Your task to perform on an android device: turn pop-ups on in chrome Image 0: 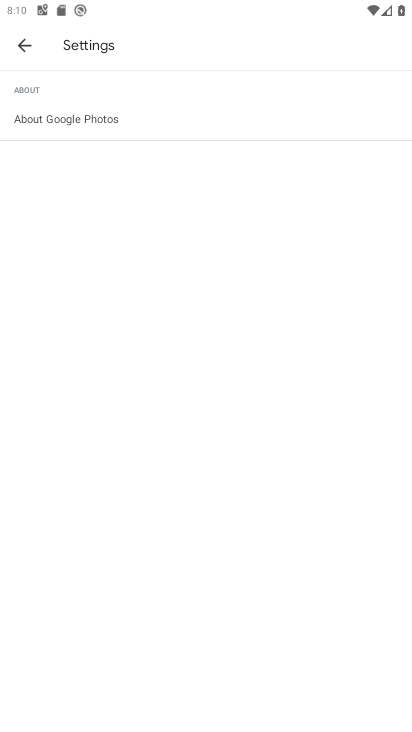
Step 0: press home button
Your task to perform on an android device: turn pop-ups on in chrome Image 1: 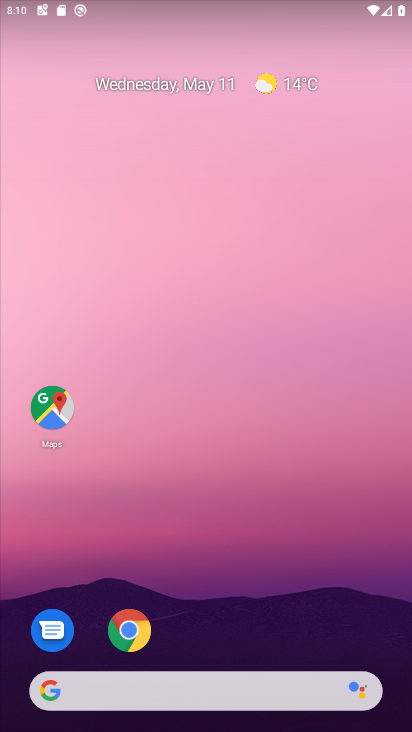
Step 1: click (133, 642)
Your task to perform on an android device: turn pop-ups on in chrome Image 2: 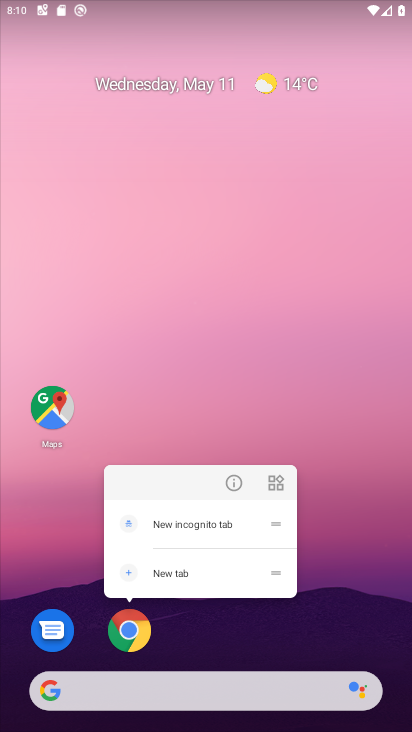
Step 2: click (130, 627)
Your task to perform on an android device: turn pop-ups on in chrome Image 3: 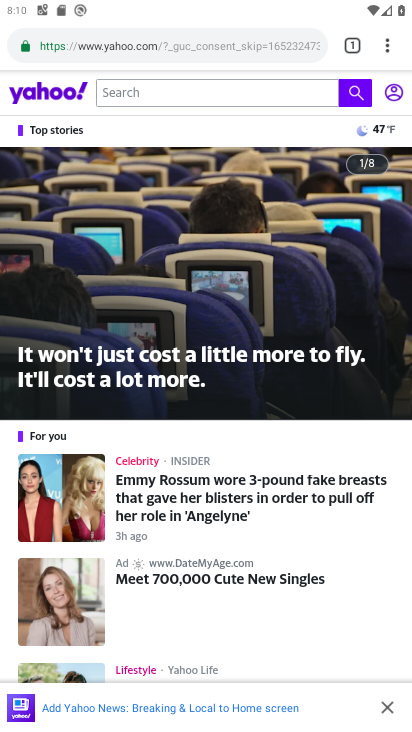
Step 3: click (386, 37)
Your task to perform on an android device: turn pop-ups on in chrome Image 4: 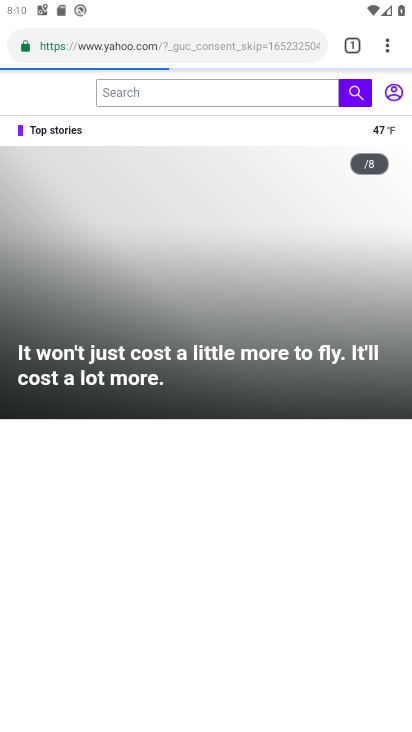
Step 4: click (384, 41)
Your task to perform on an android device: turn pop-ups on in chrome Image 5: 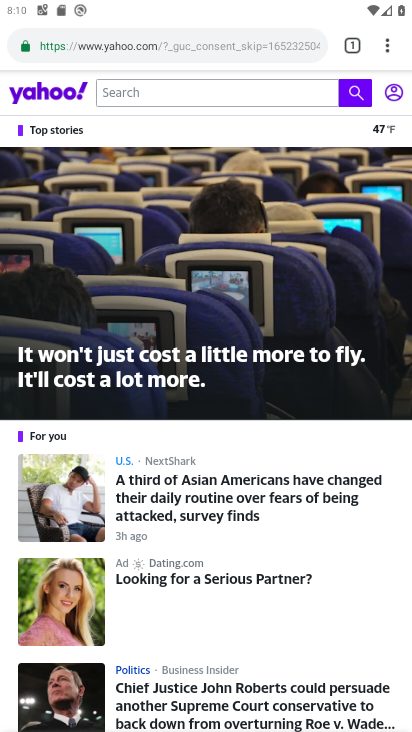
Step 5: click (378, 47)
Your task to perform on an android device: turn pop-ups on in chrome Image 6: 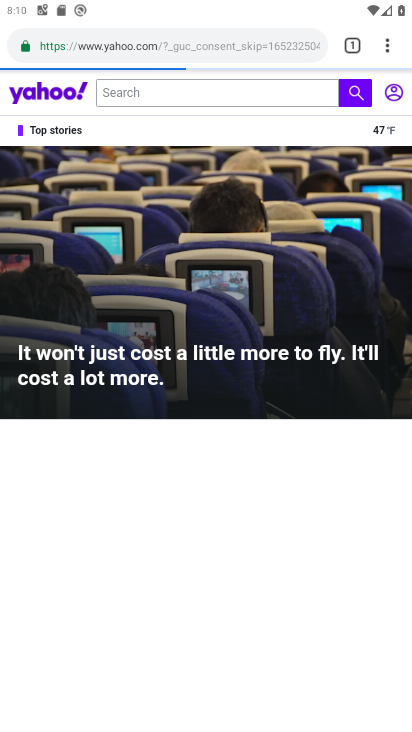
Step 6: click (387, 45)
Your task to perform on an android device: turn pop-ups on in chrome Image 7: 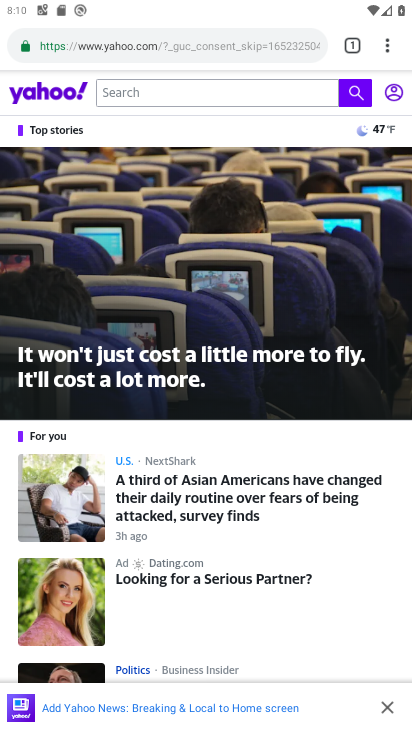
Step 7: click (380, 44)
Your task to perform on an android device: turn pop-ups on in chrome Image 8: 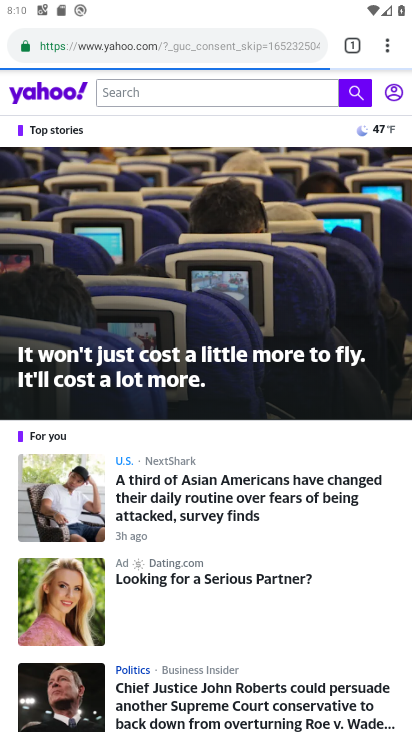
Step 8: click (380, 44)
Your task to perform on an android device: turn pop-ups on in chrome Image 9: 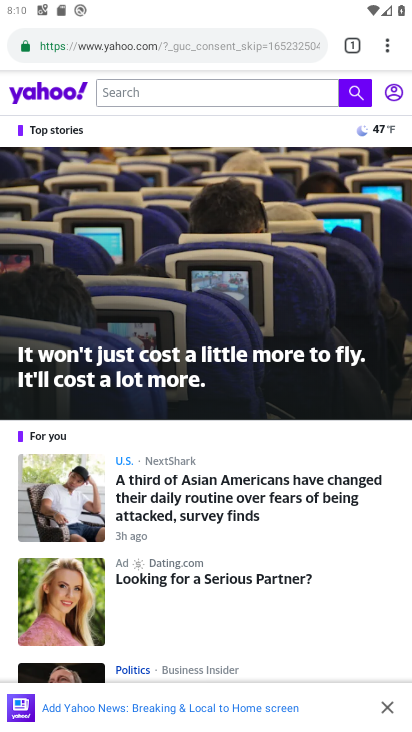
Step 9: click (387, 44)
Your task to perform on an android device: turn pop-ups on in chrome Image 10: 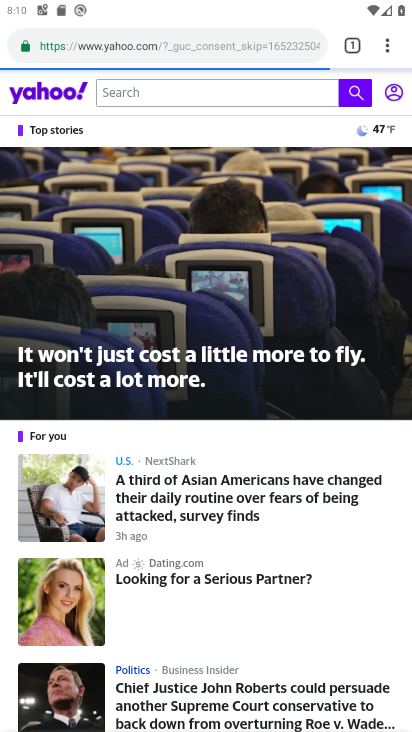
Step 10: click (394, 44)
Your task to perform on an android device: turn pop-ups on in chrome Image 11: 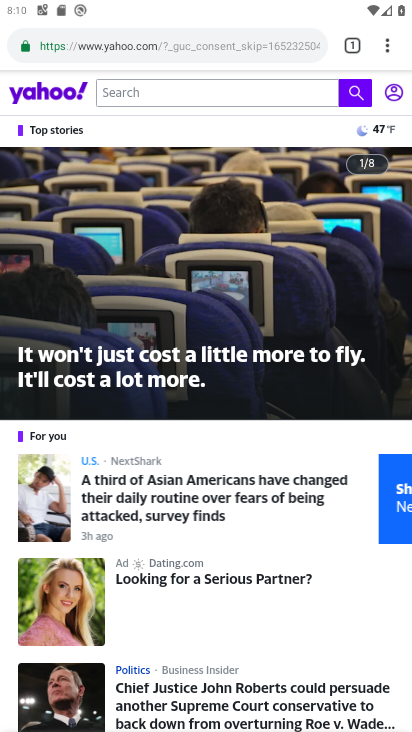
Step 11: click (348, 43)
Your task to perform on an android device: turn pop-ups on in chrome Image 12: 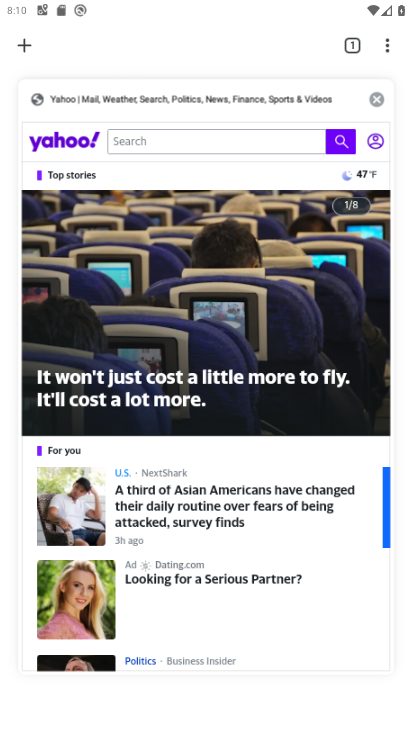
Step 12: click (375, 101)
Your task to perform on an android device: turn pop-ups on in chrome Image 13: 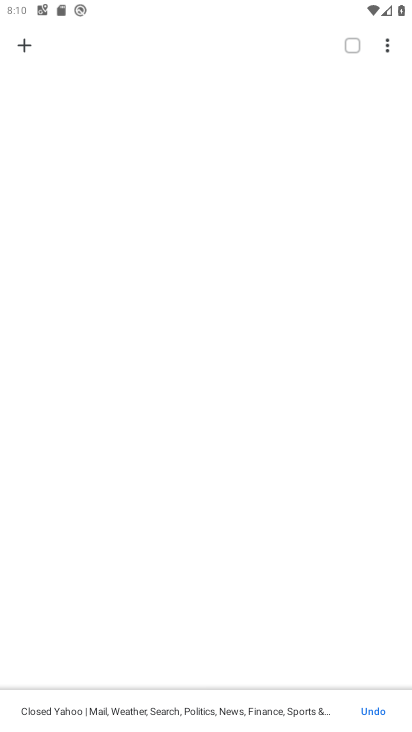
Step 13: click (21, 44)
Your task to perform on an android device: turn pop-ups on in chrome Image 14: 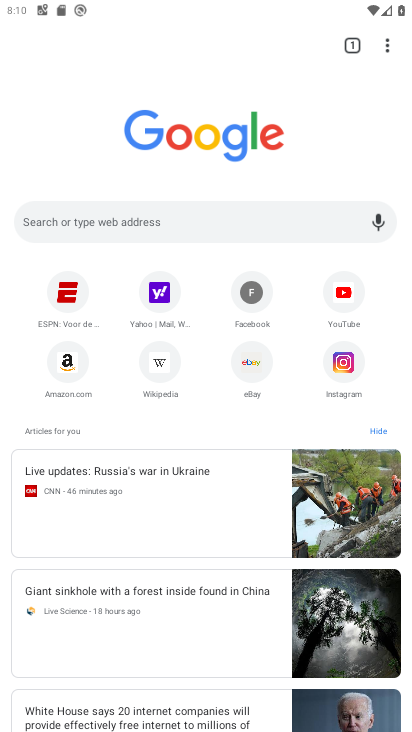
Step 14: click (390, 44)
Your task to perform on an android device: turn pop-ups on in chrome Image 15: 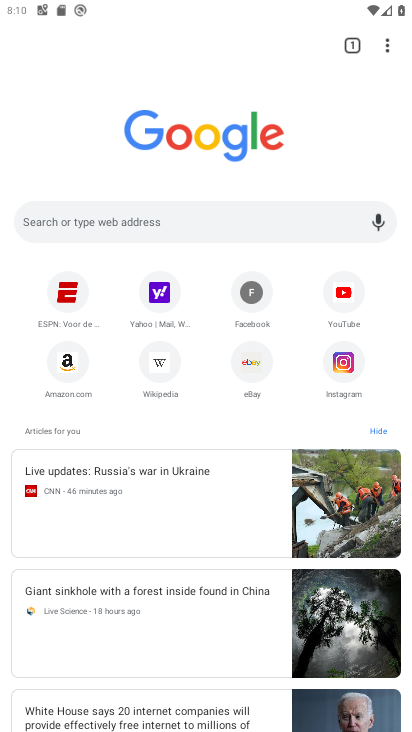
Step 15: click (366, 52)
Your task to perform on an android device: turn pop-ups on in chrome Image 16: 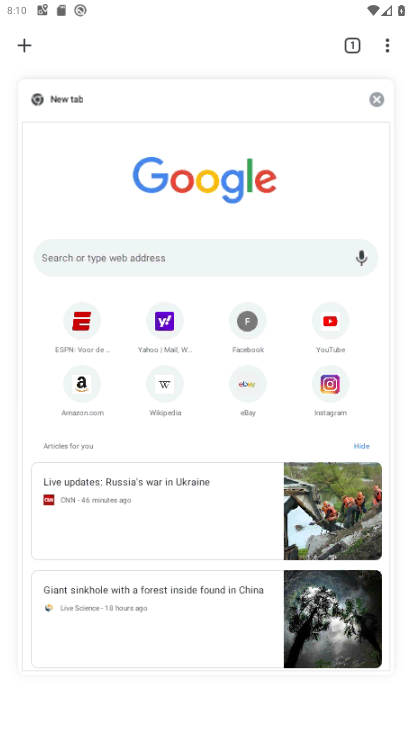
Step 16: click (312, 164)
Your task to perform on an android device: turn pop-ups on in chrome Image 17: 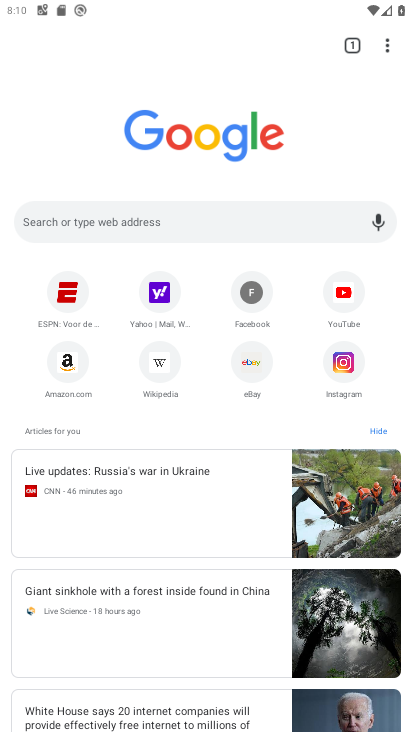
Step 17: click (387, 46)
Your task to perform on an android device: turn pop-ups on in chrome Image 18: 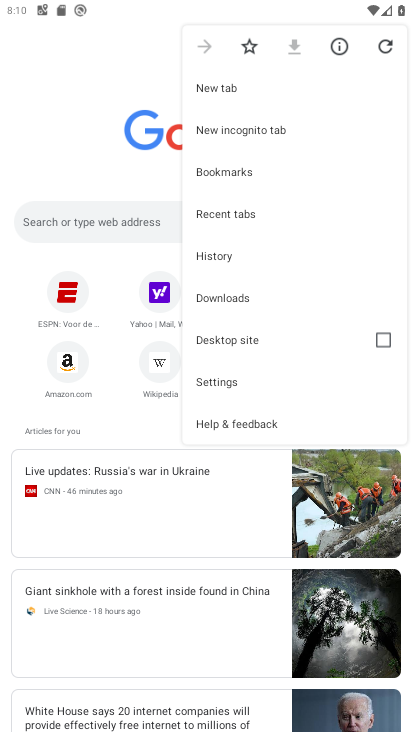
Step 18: click (207, 379)
Your task to perform on an android device: turn pop-ups on in chrome Image 19: 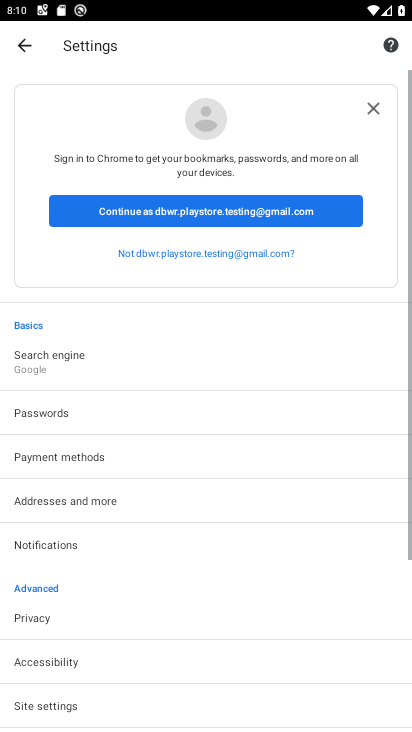
Step 19: drag from (123, 693) to (216, 139)
Your task to perform on an android device: turn pop-ups on in chrome Image 20: 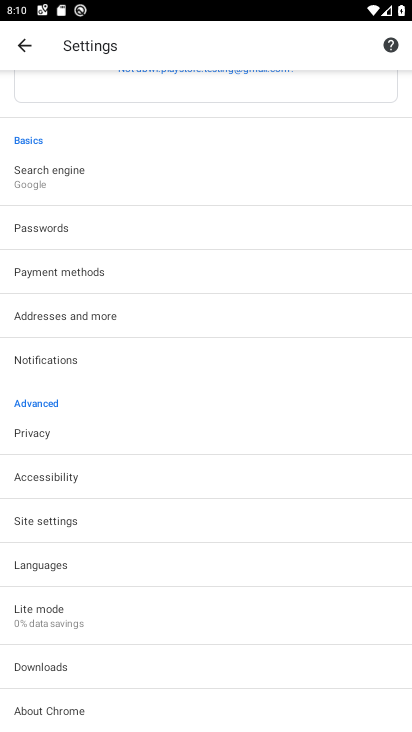
Step 20: click (123, 531)
Your task to perform on an android device: turn pop-ups on in chrome Image 21: 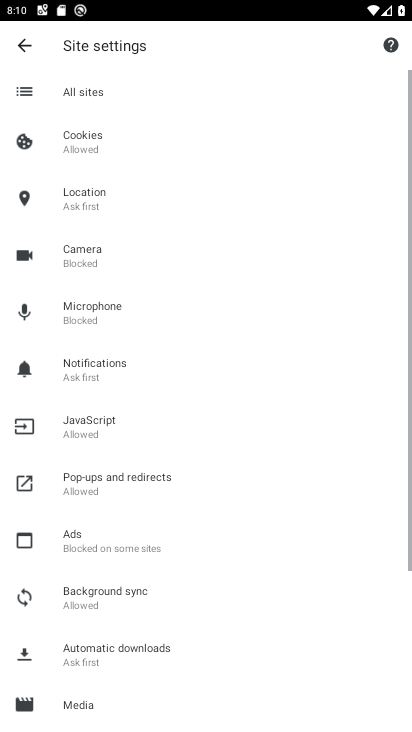
Step 21: drag from (134, 660) to (213, 346)
Your task to perform on an android device: turn pop-ups on in chrome Image 22: 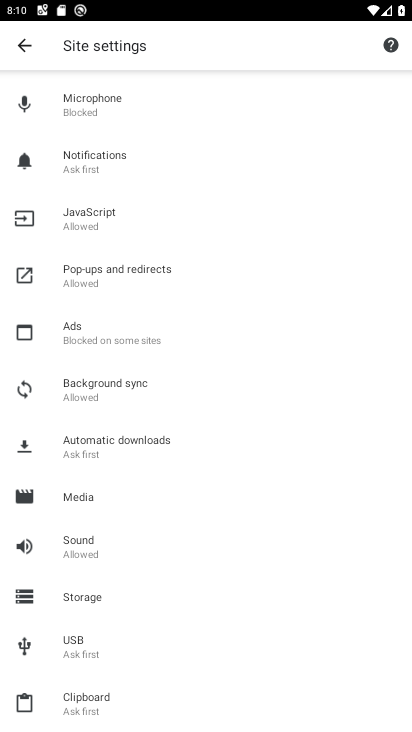
Step 22: click (139, 285)
Your task to perform on an android device: turn pop-ups on in chrome Image 23: 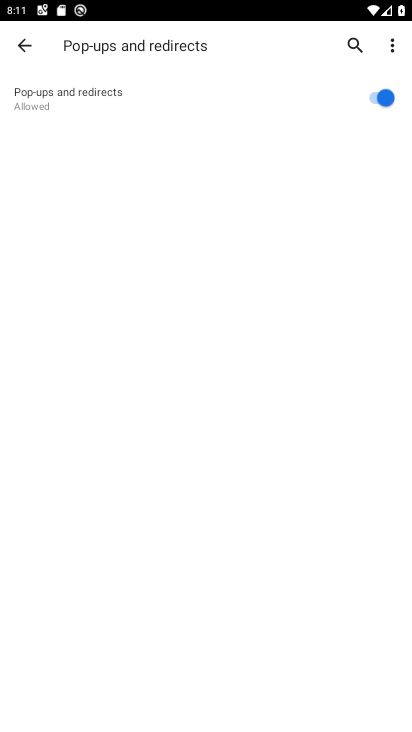
Step 23: task complete